Your task to perform on an android device: change notification settings in the gmail app Image 0: 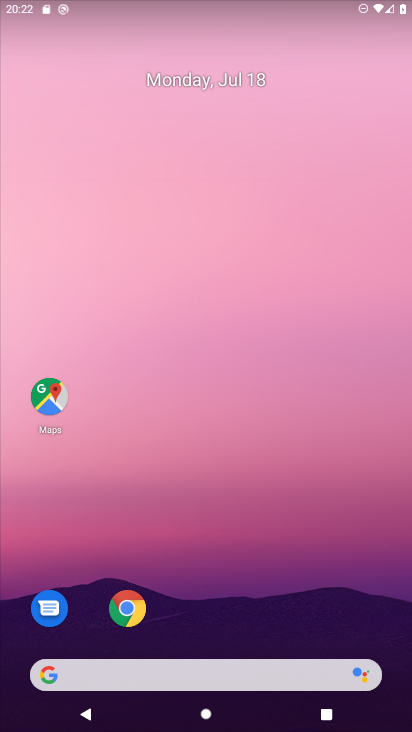
Step 0: drag from (213, 625) to (246, 58)
Your task to perform on an android device: change notification settings in the gmail app Image 1: 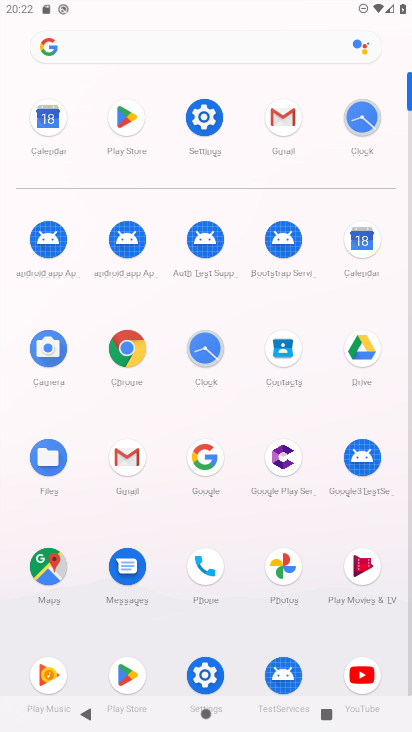
Step 1: click (126, 456)
Your task to perform on an android device: change notification settings in the gmail app Image 2: 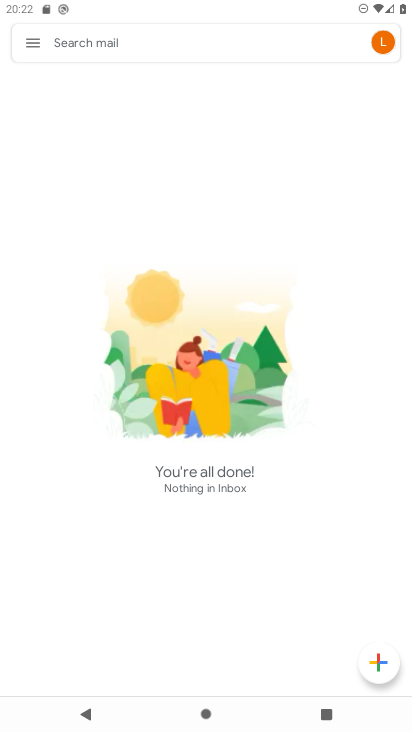
Step 2: click (32, 38)
Your task to perform on an android device: change notification settings in the gmail app Image 3: 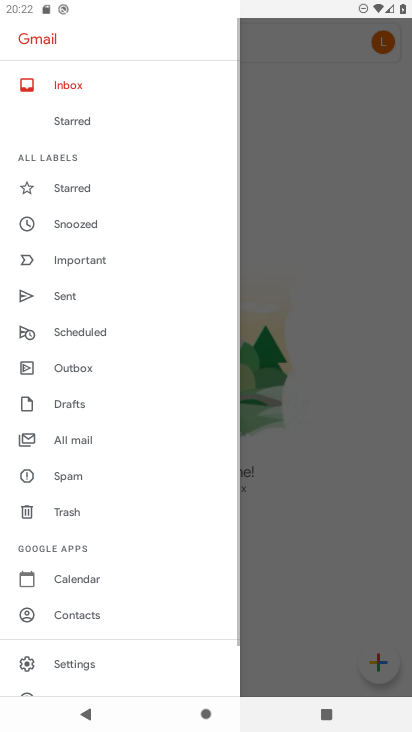
Step 3: click (83, 655)
Your task to perform on an android device: change notification settings in the gmail app Image 4: 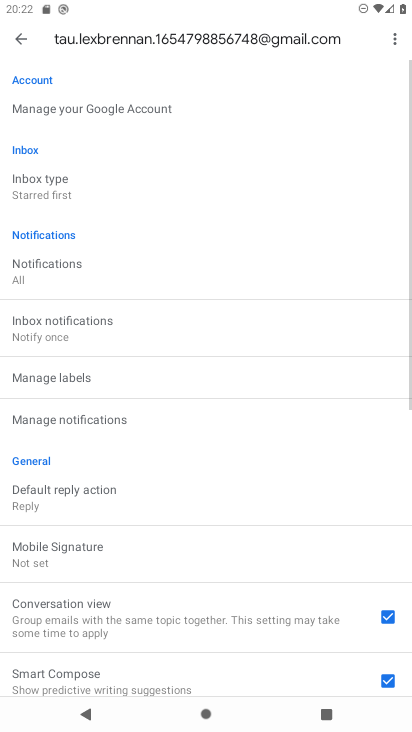
Step 4: click (65, 271)
Your task to perform on an android device: change notification settings in the gmail app Image 5: 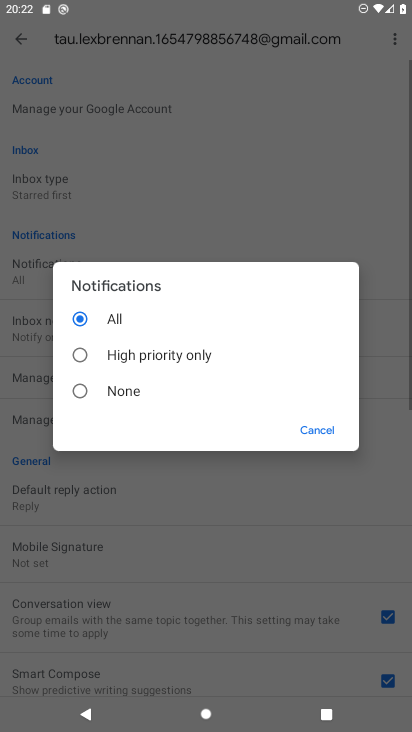
Step 5: click (77, 395)
Your task to perform on an android device: change notification settings in the gmail app Image 6: 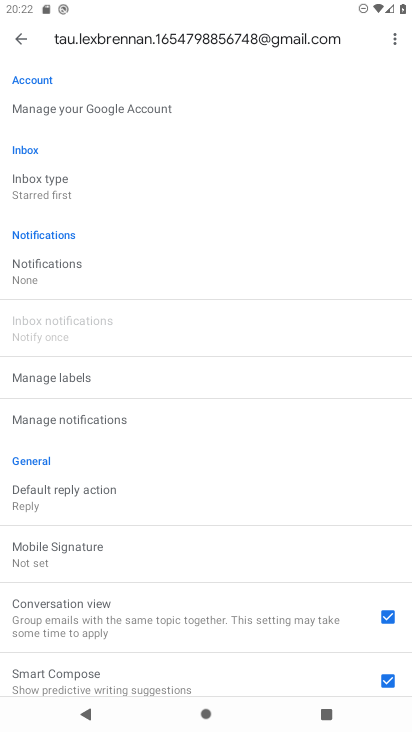
Step 6: task complete